Your task to perform on an android device: set the stopwatch Image 0: 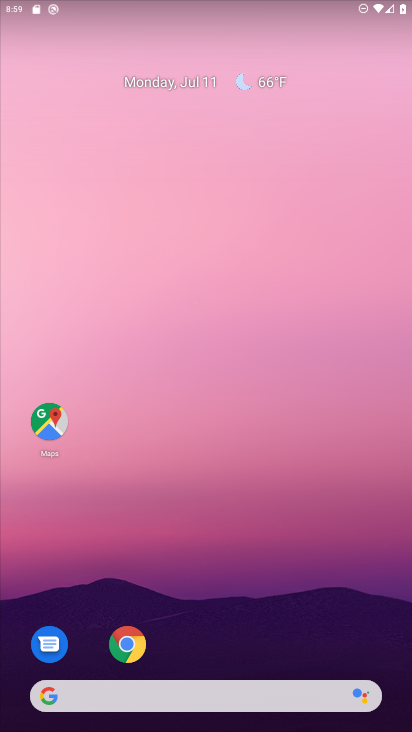
Step 0: drag from (317, 593) to (292, 164)
Your task to perform on an android device: set the stopwatch Image 1: 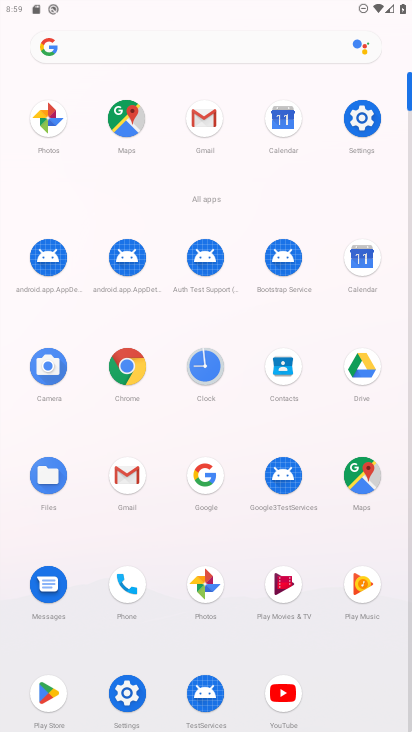
Step 1: click (197, 370)
Your task to perform on an android device: set the stopwatch Image 2: 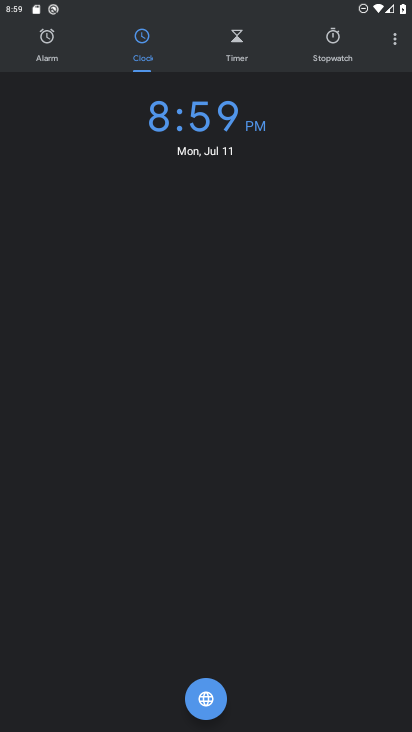
Step 2: click (338, 46)
Your task to perform on an android device: set the stopwatch Image 3: 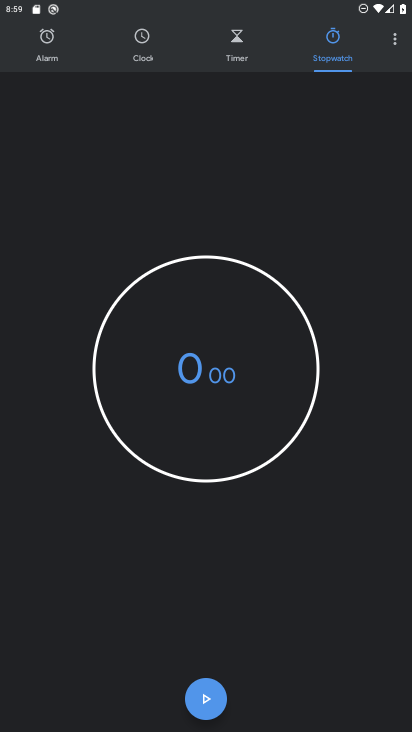
Step 3: click (217, 701)
Your task to perform on an android device: set the stopwatch Image 4: 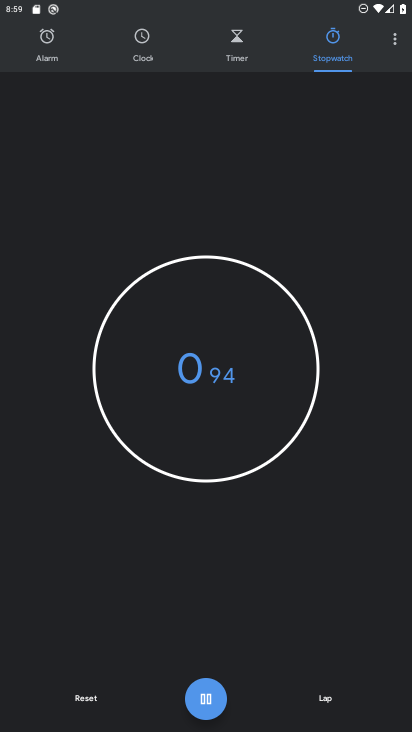
Step 4: click (217, 701)
Your task to perform on an android device: set the stopwatch Image 5: 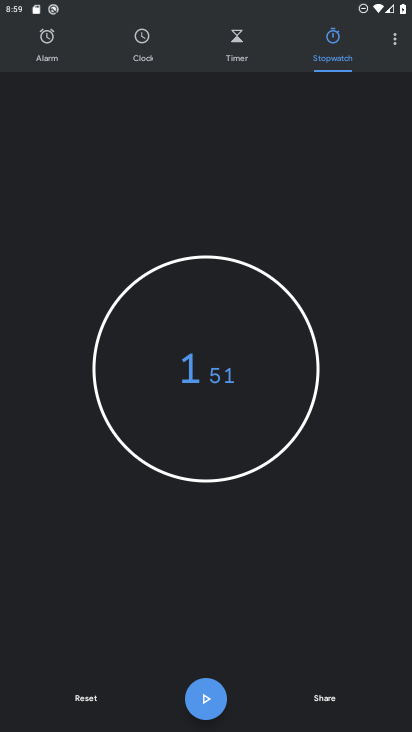
Step 5: task complete